Your task to perform on an android device: What's on my calendar today? Image 0: 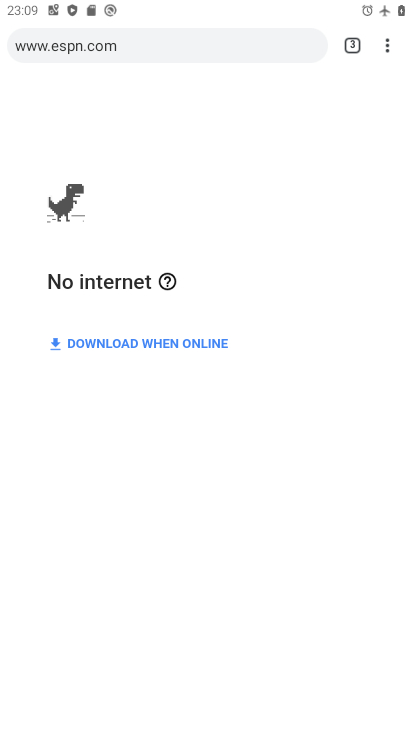
Step 0: press home button
Your task to perform on an android device: What's on my calendar today? Image 1: 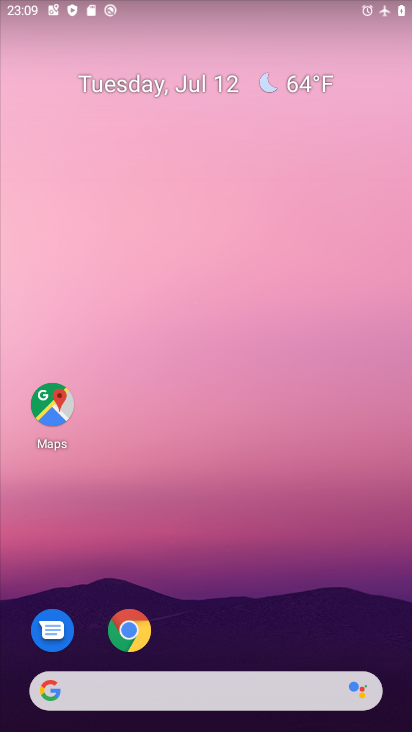
Step 1: drag from (214, 665) to (137, 160)
Your task to perform on an android device: What's on my calendar today? Image 2: 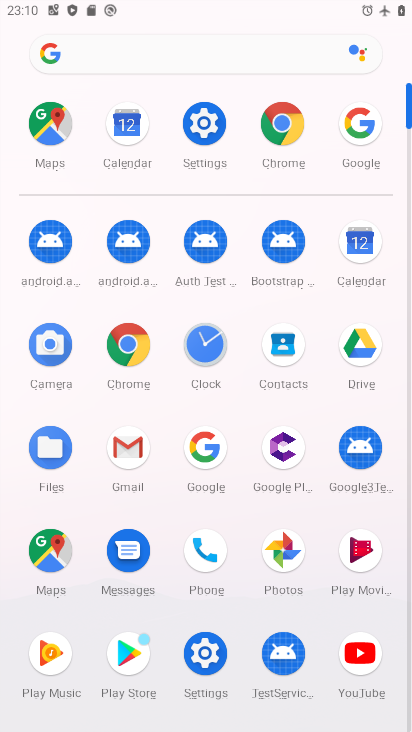
Step 2: click (365, 255)
Your task to perform on an android device: What's on my calendar today? Image 3: 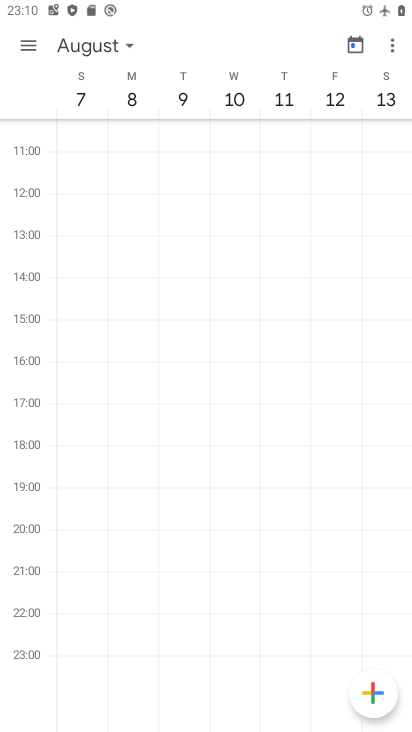
Step 3: click (356, 33)
Your task to perform on an android device: What's on my calendar today? Image 4: 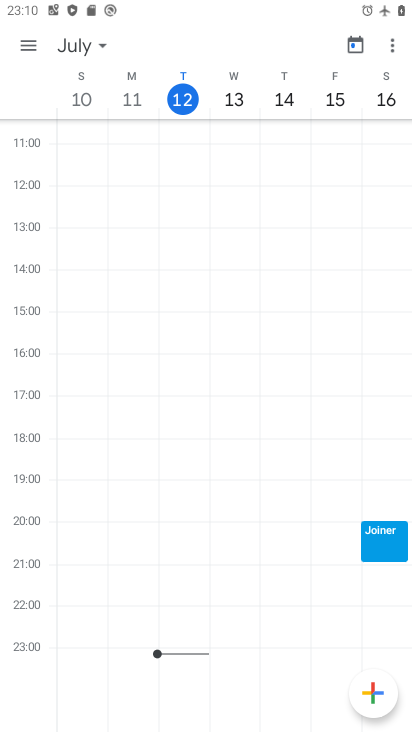
Step 4: click (178, 97)
Your task to perform on an android device: What's on my calendar today? Image 5: 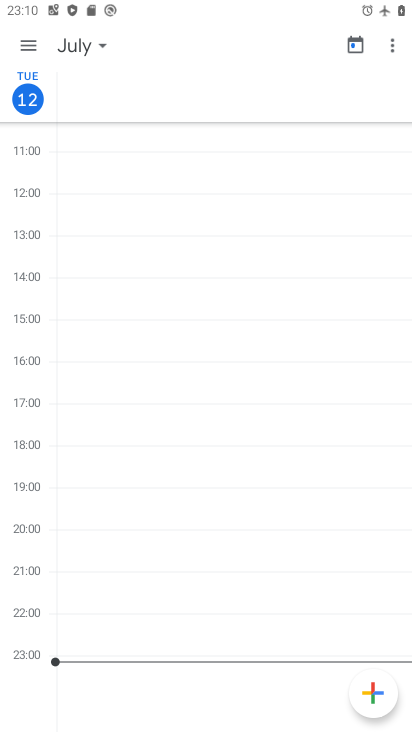
Step 5: task complete